Your task to perform on an android device: Open accessibility settings Image 0: 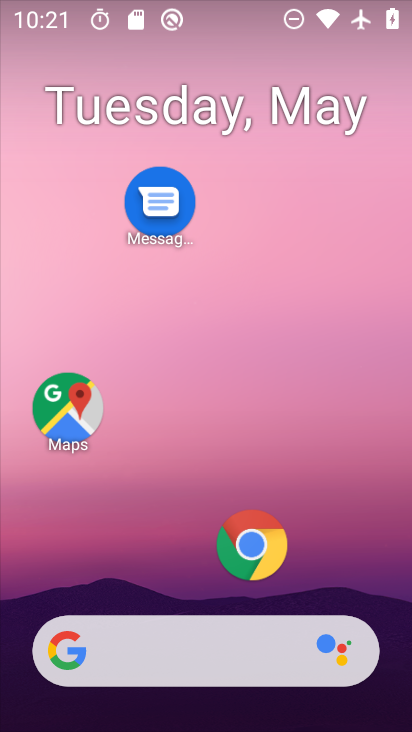
Step 0: drag from (185, 574) to (191, 162)
Your task to perform on an android device: Open accessibility settings Image 1: 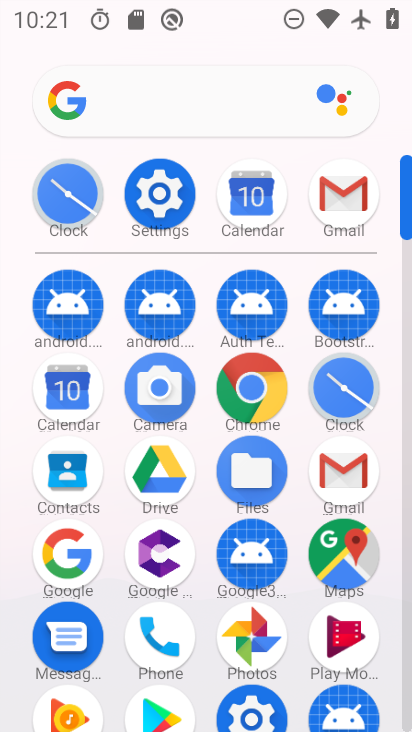
Step 1: click (142, 199)
Your task to perform on an android device: Open accessibility settings Image 2: 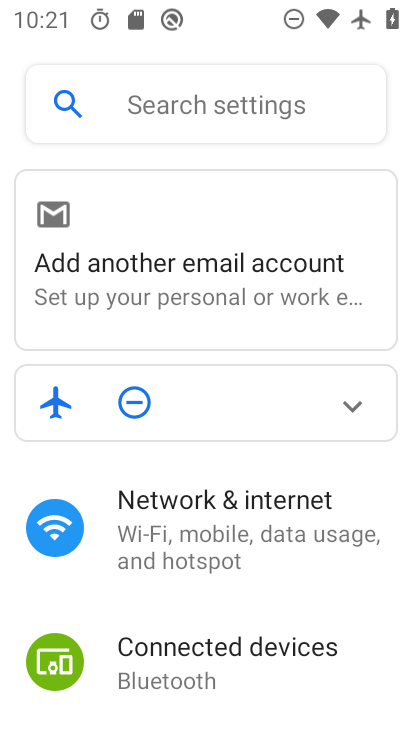
Step 2: drag from (203, 665) to (170, 250)
Your task to perform on an android device: Open accessibility settings Image 3: 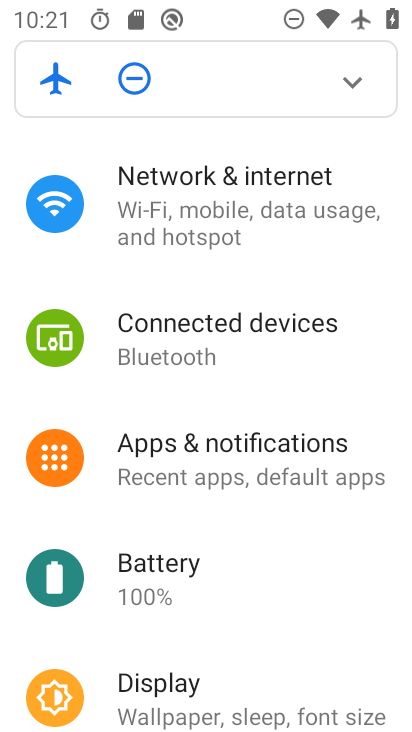
Step 3: drag from (210, 659) to (173, 341)
Your task to perform on an android device: Open accessibility settings Image 4: 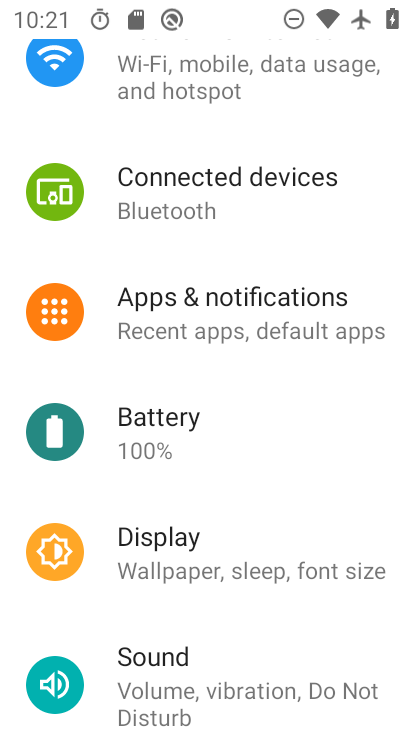
Step 4: drag from (188, 655) to (167, 309)
Your task to perform on an android device: Open accessibility settings Image 5: 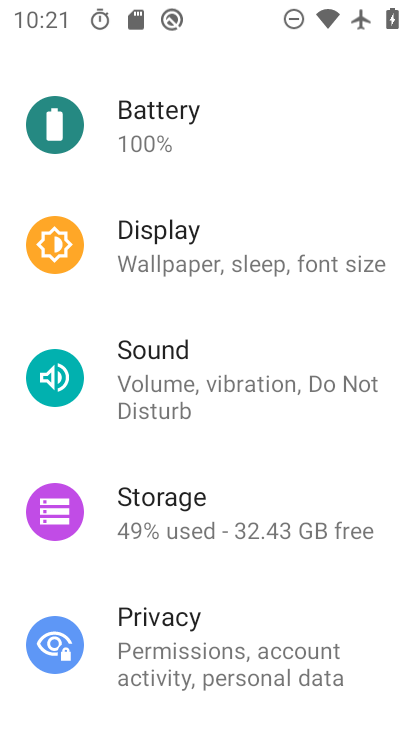
Step 5: drag from (181, 674) to (171, 365)
Your task to perform on an android device: Open accessibility settings Image 6: 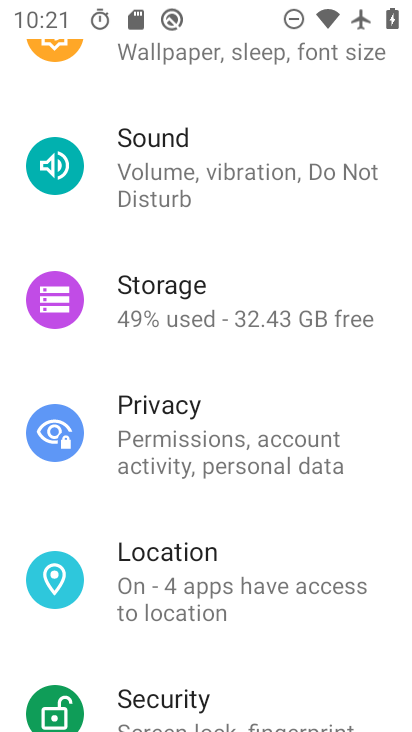
Step 6: drag from (176, 680) to (224, 341)
Your task to perform on an android device: Open accessibility settings Image 7: 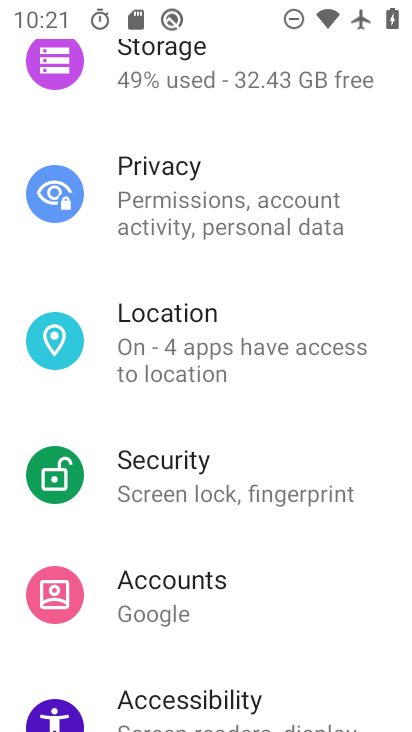
Step 7: drag from (259, 610) to (234, 287)
Your task to perform on an android device: Open accessibility settings Image 8: 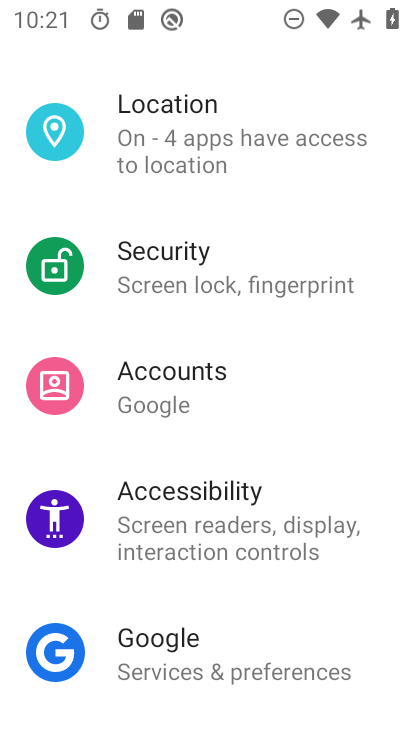
Step 8: click (217, 522)
Your task to perform on an android device: Open accessibility settings Image 9: 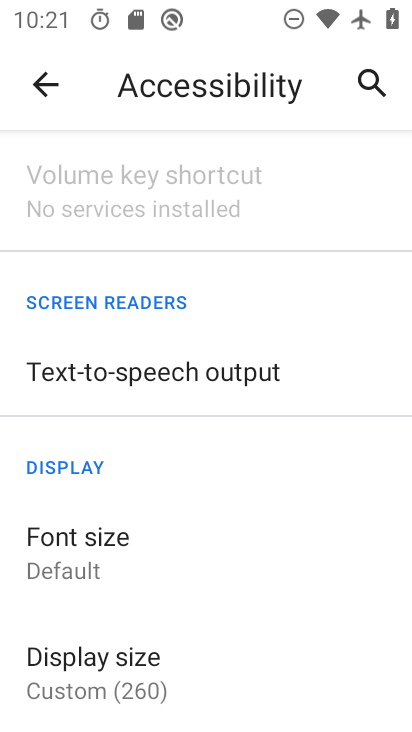
Step 9: task complete